Your task to perform on an android device: Open the web browser Image 0: 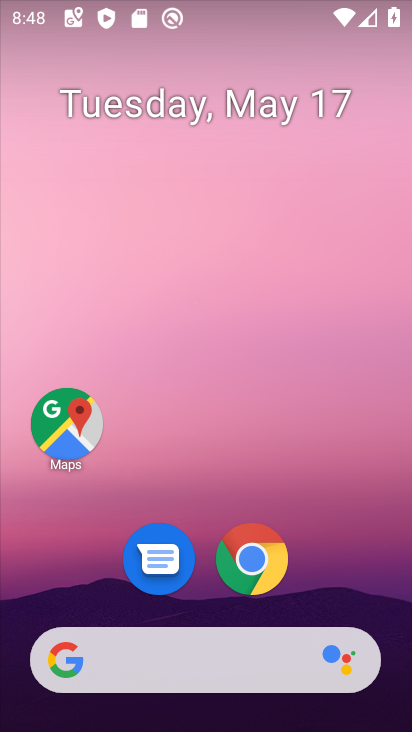
Step 0: click (258, 568)
Your task to perform on an android device: Open the web browser Image 1: 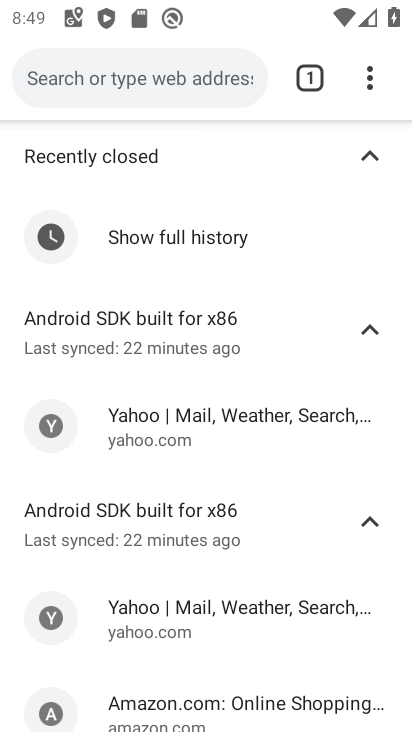
Step 1: task complete